Your task to perform on an android device: show emergency info Image 0: 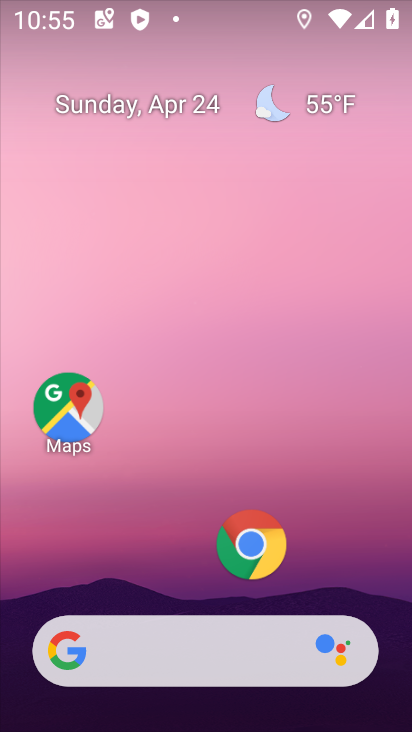
Step 0: drag from (166, 580) to (140, 180)
Your task to perform on an android device: show emergency info Image 1: 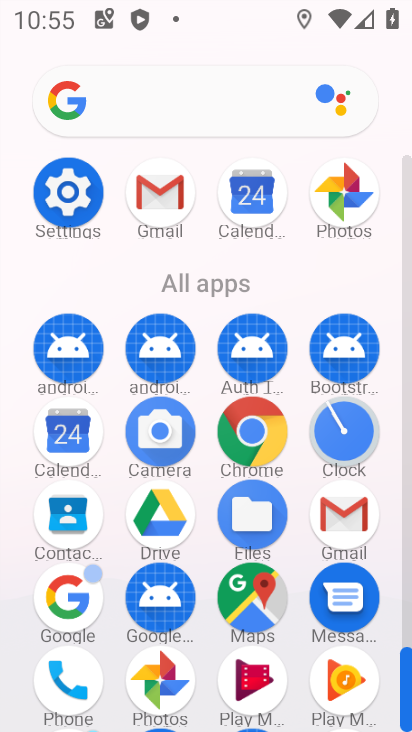
Step 1: click (81, 188)
Your task to perform on an android device: show emergency info Image 2: 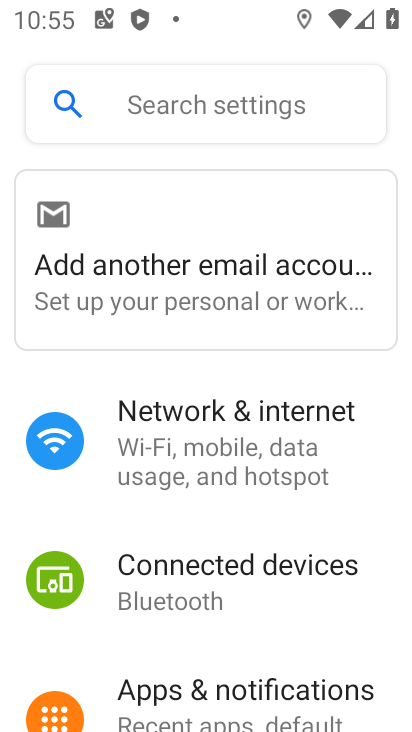
Step 2: drag from (208, 587) to (214, 275)
Your task to perform on an android device: show emergency info Image 3: 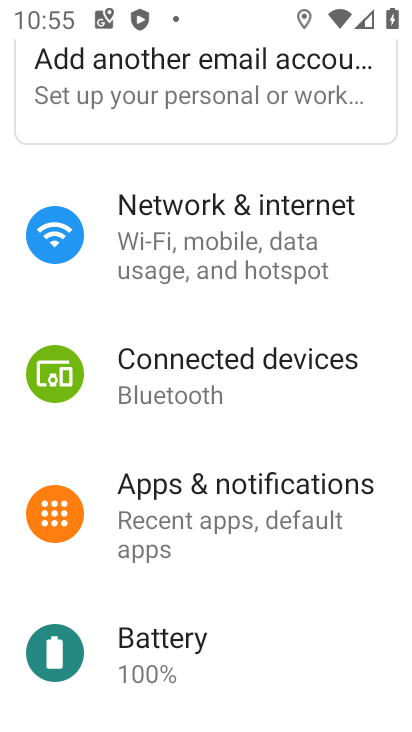
Step 3: drag from (224, 602) to (251, 258)
Your task to perform on an android device: show emergency info Image 4: 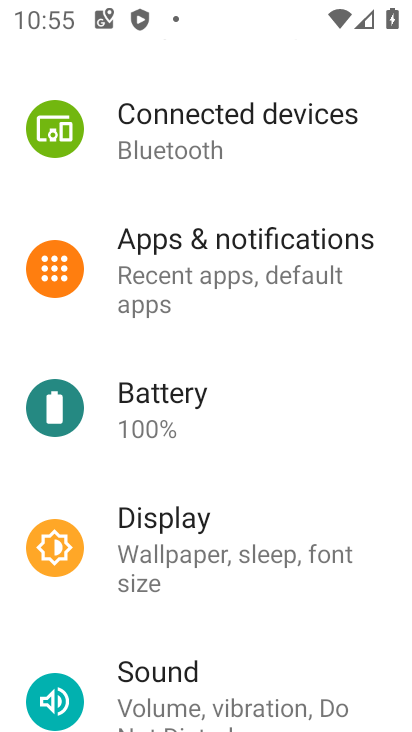
Step 4: drag from (257, 610) to (260, 282)
Your task to perform on an android device: show emergency info Image 5: 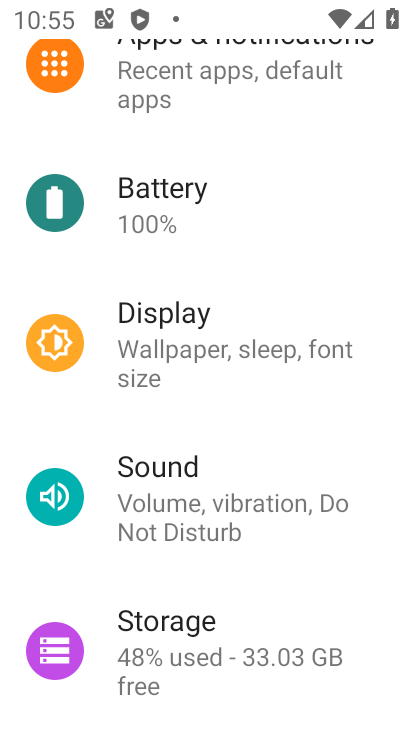
Step 5: drag from (223, 564) to (236, 303)
Your task to perform on an android device: show emergency info Image 6: 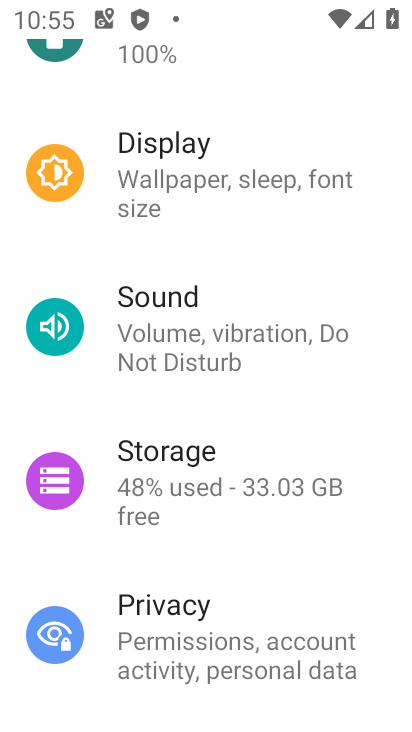
Step 6: drag from (225, 589) to (233, 179)
Your task to perform on an android device: show emergency info Image 7: 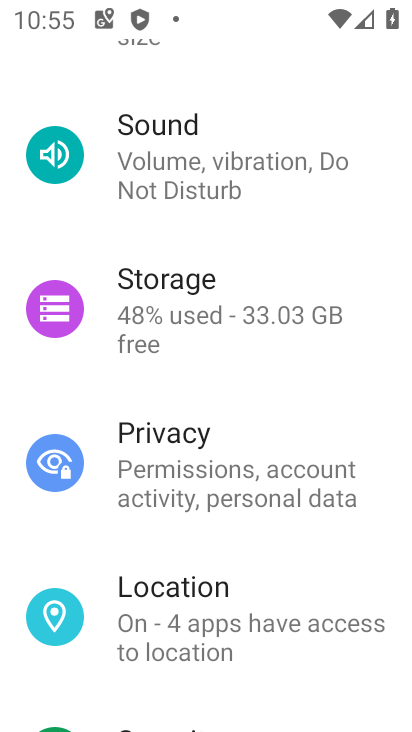
Step 7: drag from (251, 551) to (272, 262)
Your task to perform on an android device: show emergency info Image 8: 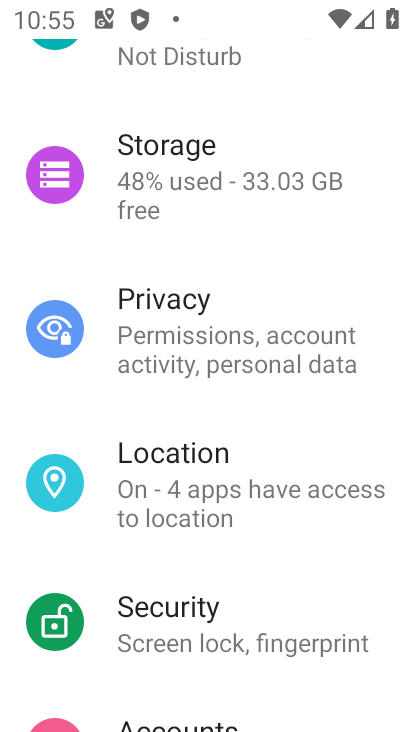
Step 8: drag from (248, 589) to (252, 346)
Your task to perform on an android device: show emergency info Image 9: 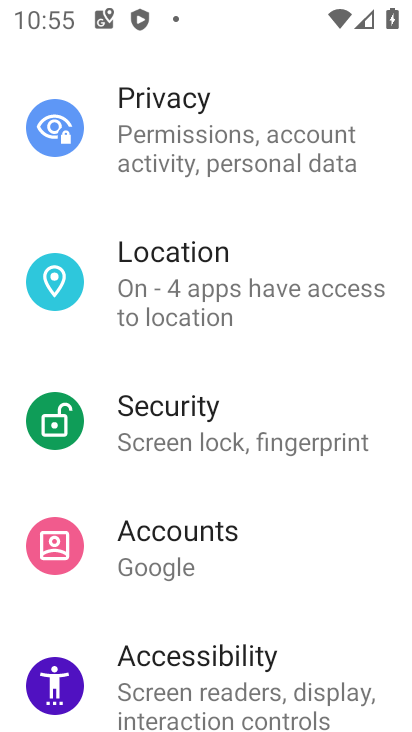
Step 9: drag from (254, 653) to (282, 394)
Your task to perform on an android device: show emergency info Image 10: 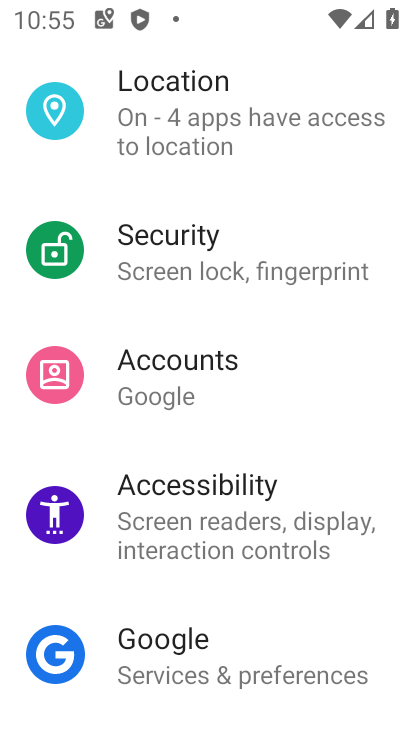
Step 10: drag from (227, 547) to (219, 253)
Your task to perform on an android device: show emergency info Image 11: 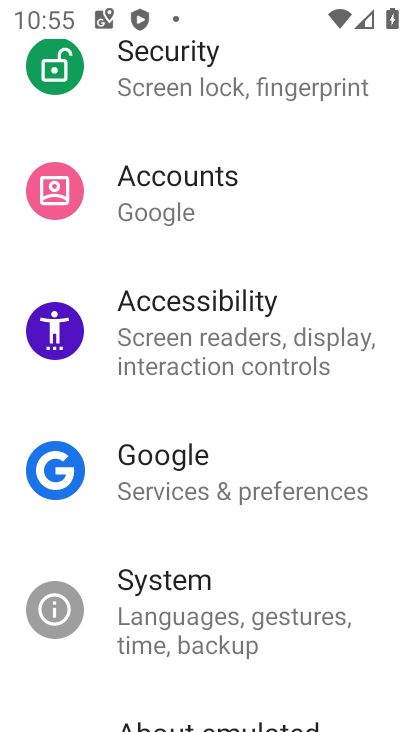
Step 11: drag from (251, 450) to (255, 299)
Your task to perform on an android device: show emergency info Image 12: 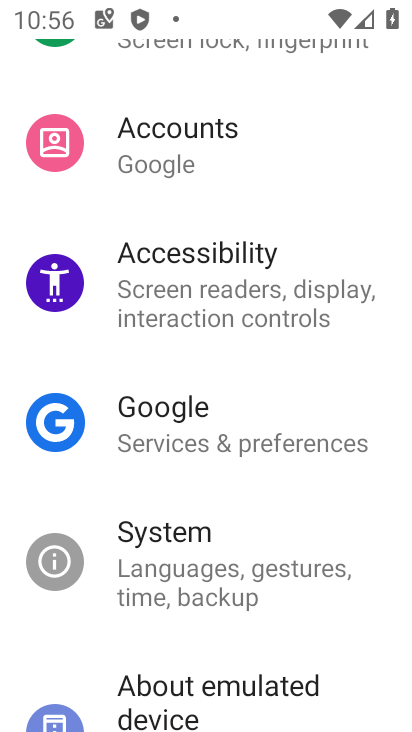
Step 12: drag from (280, 611) to (290, 315)
Your task to perform on an android device: show emergency info Image 13: 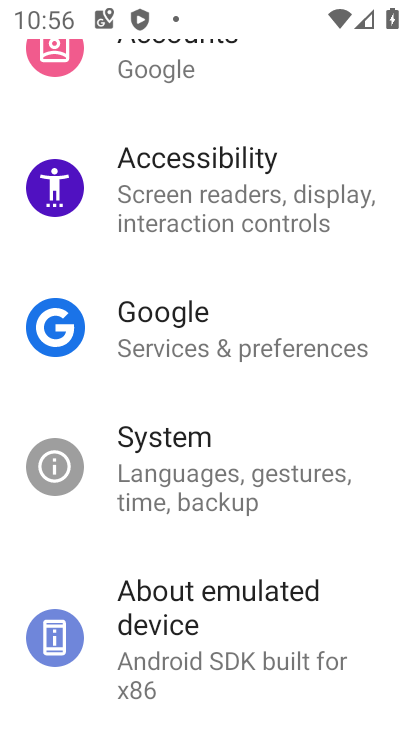
Step 13: click (232, 632)
Your task to perform on an android device: show emergency info Image 14: 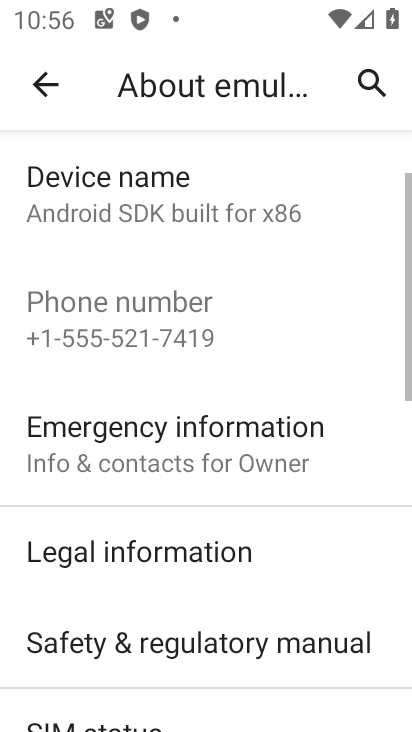
Step 14: click (146, 459)
Your task to perform on an android device: show emergency info Image 15: 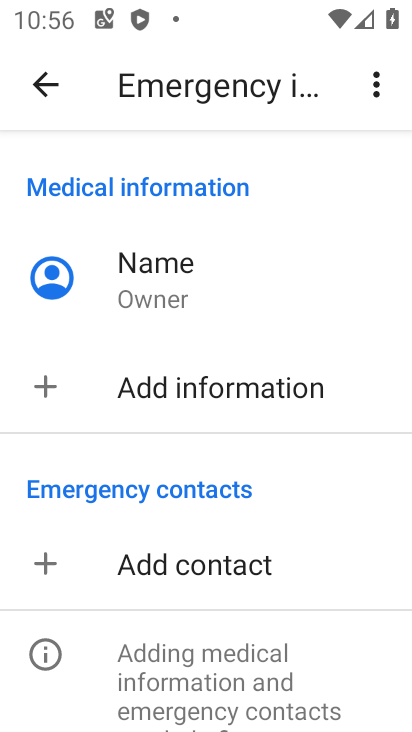
Step 15: task complete